Your task to perform on an android device: Check out the best rated electric trimmers on Lowe's Image 0: 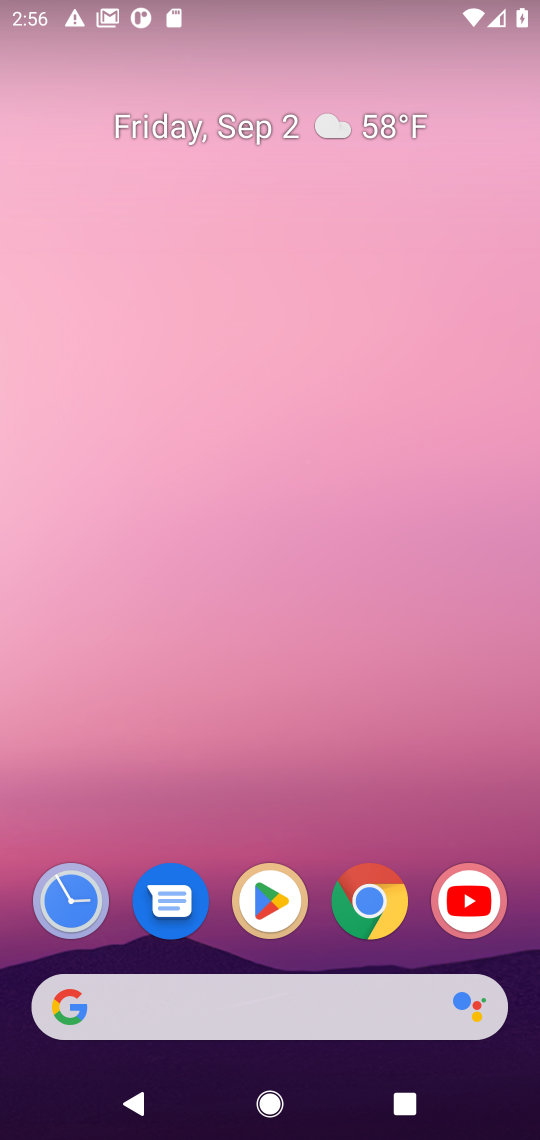
Step 0: click (370, 900)
Your task to perform on an android device: Check out the best rated electric trimmers on Lowe's Image 1: 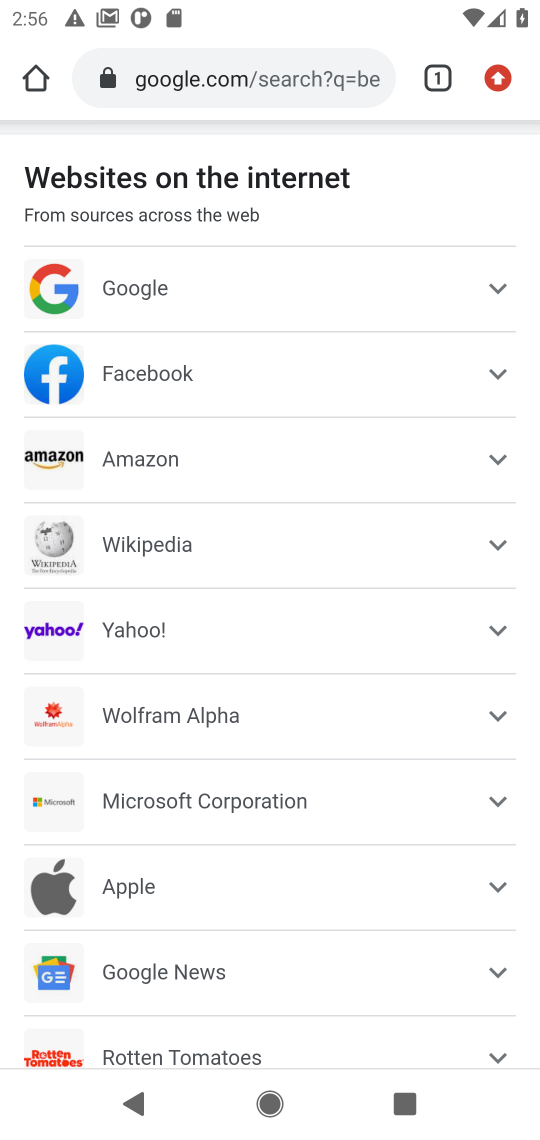
Step 1: click (273, 81)
Your task to perform on an android device: Check out the best rated electric trimmers on Lowe's Image 2: 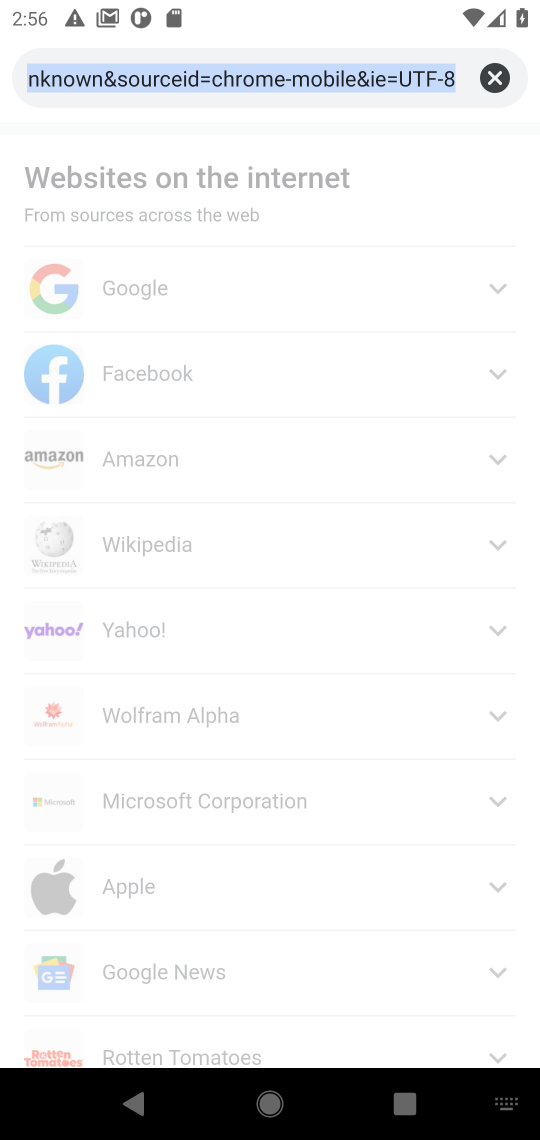
Step 2: type "best rated electric trimmers on Lowe's"
Your task to perform on an android device: Check out the best rated electric trimmers on Lowe's Image 3: 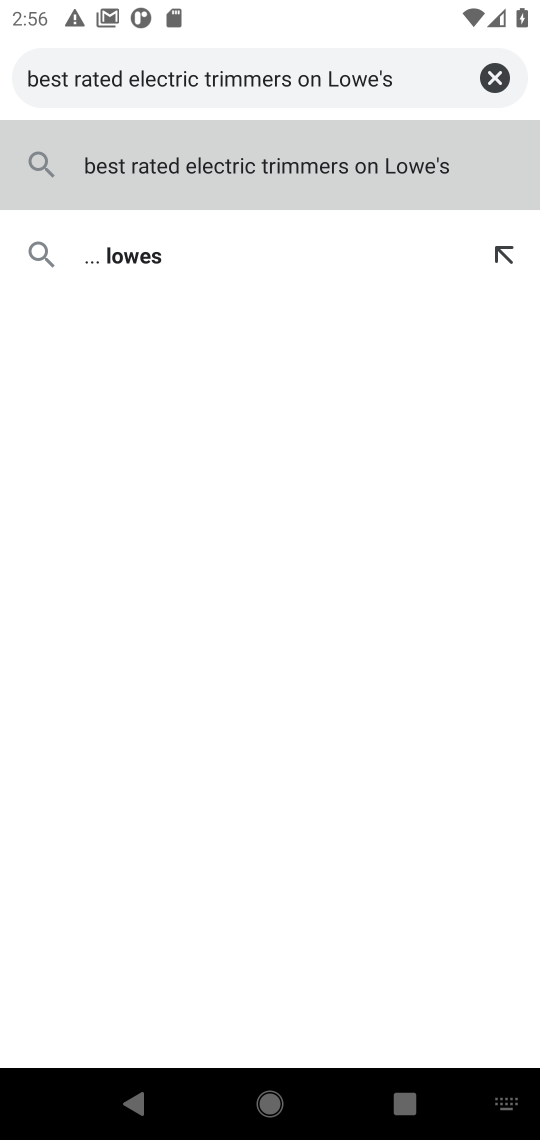
Step 3: press enter
Your task to perform on an android device: Check out the best rated electric trimmers on Lowe's Image 4: 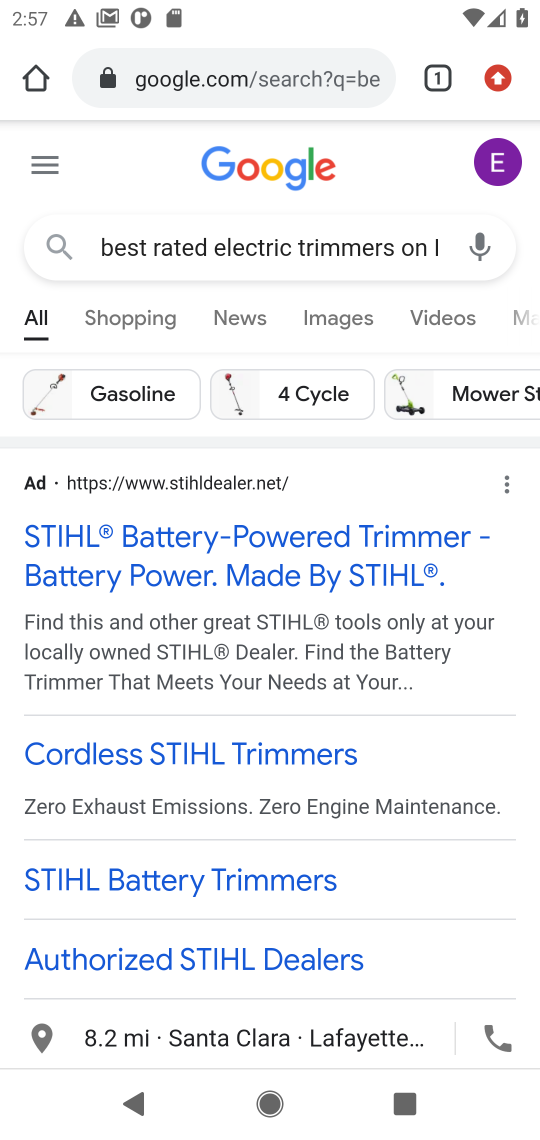
Step 4: drag from (386, 1004) to (278, 107)
Your task to perform on an android device: Check out the best rated electric trimmers on Lowe's Image 5: 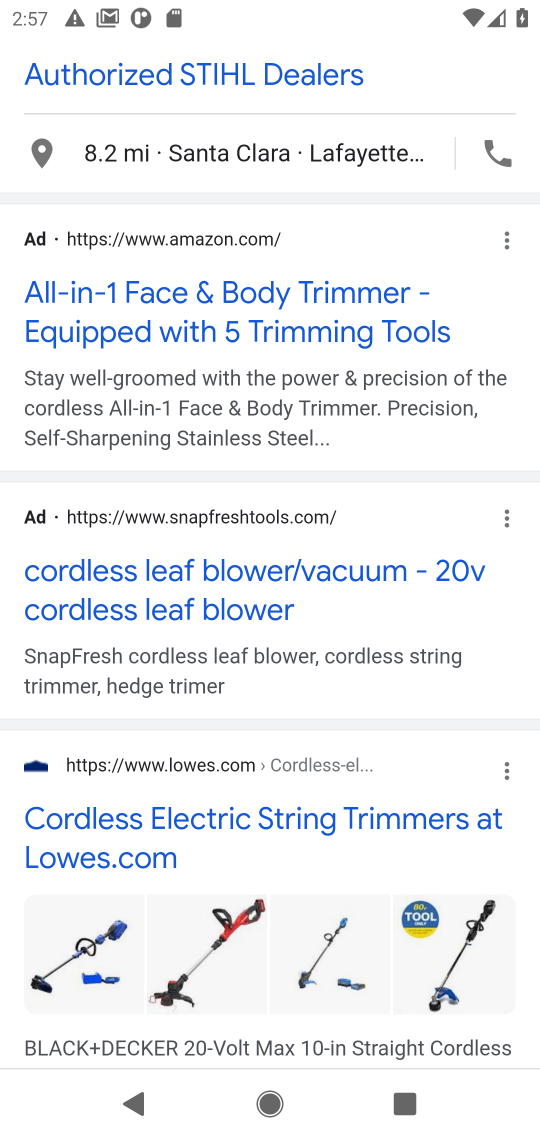
Step 5: drag from (310, 991) to (297, 459)
Your task to perform on an android device: Check out the best rated electric trimmers on Lowe's Image 6: 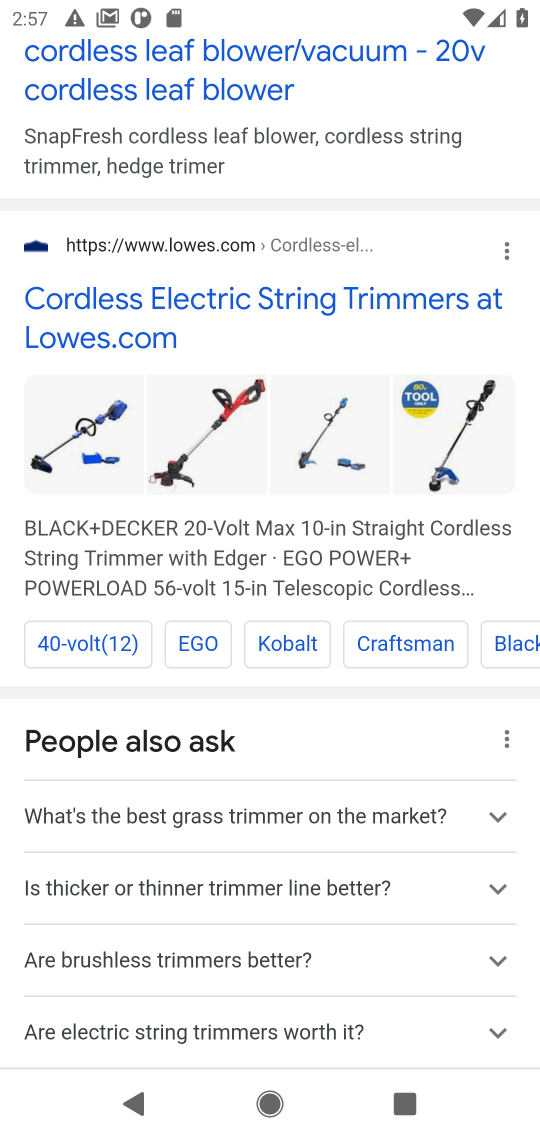
Step 6: click (244, 302)
Your task to perform on an android device: Check out the best rated electric trimmers on Lowe's Image 7: 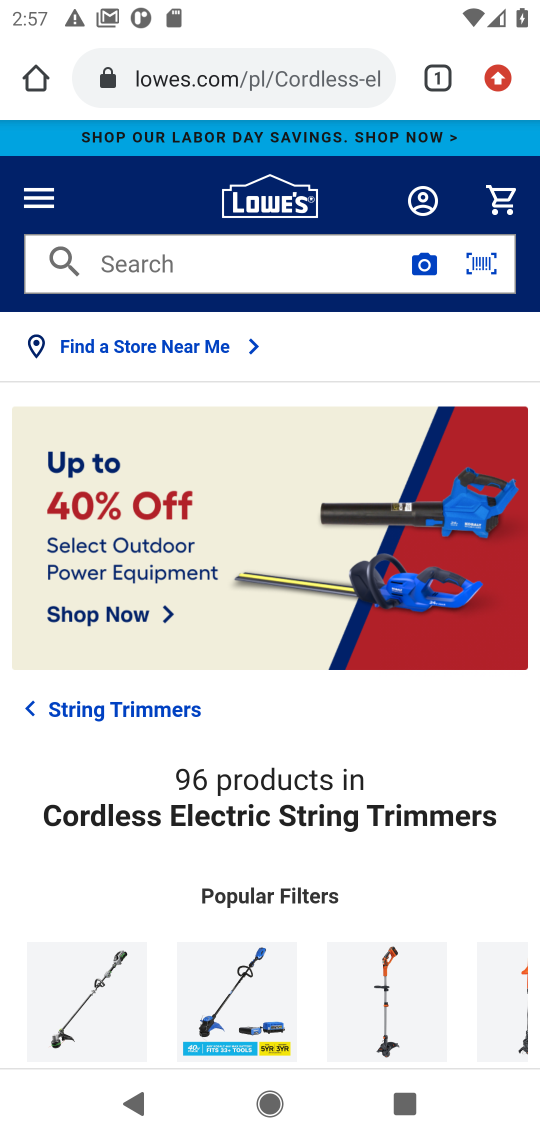
Step 7: task complete